Your task to perform on an android device: View the shopping cart on walmart. Image 0: 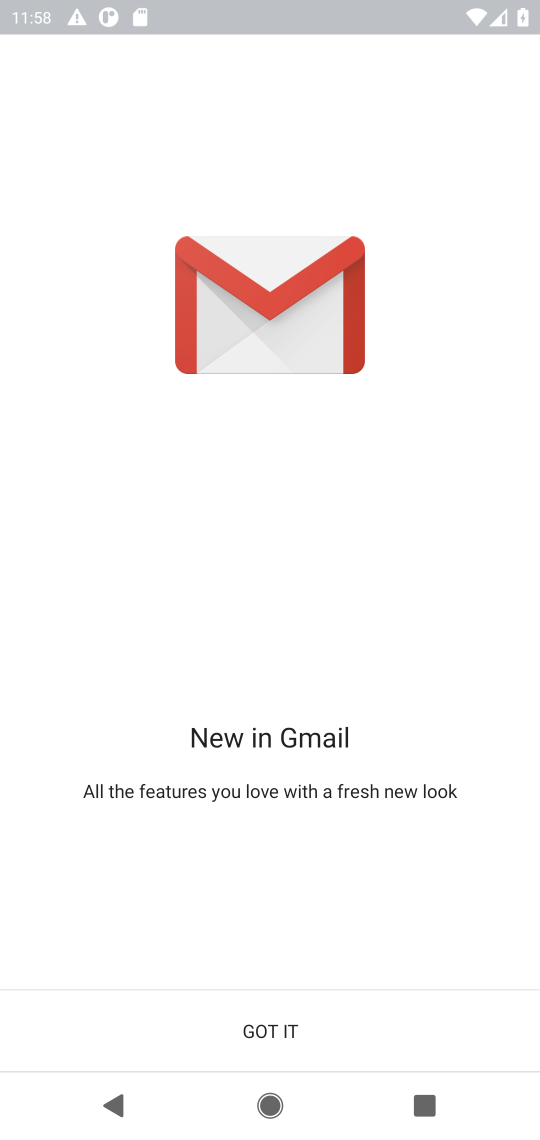
Step 0: press home button
Your task to perform on an android device: View the shopping cart on walmart. Image 1: 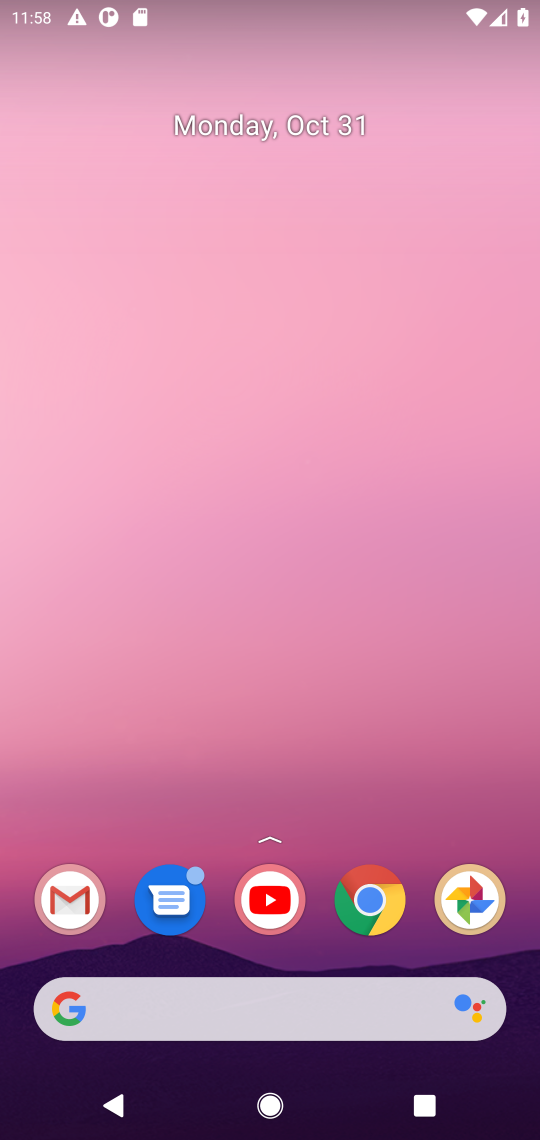
Step 1: click (358, 911)
Your task to perform on an android device: View the shopping cart on walmart. Image 2: 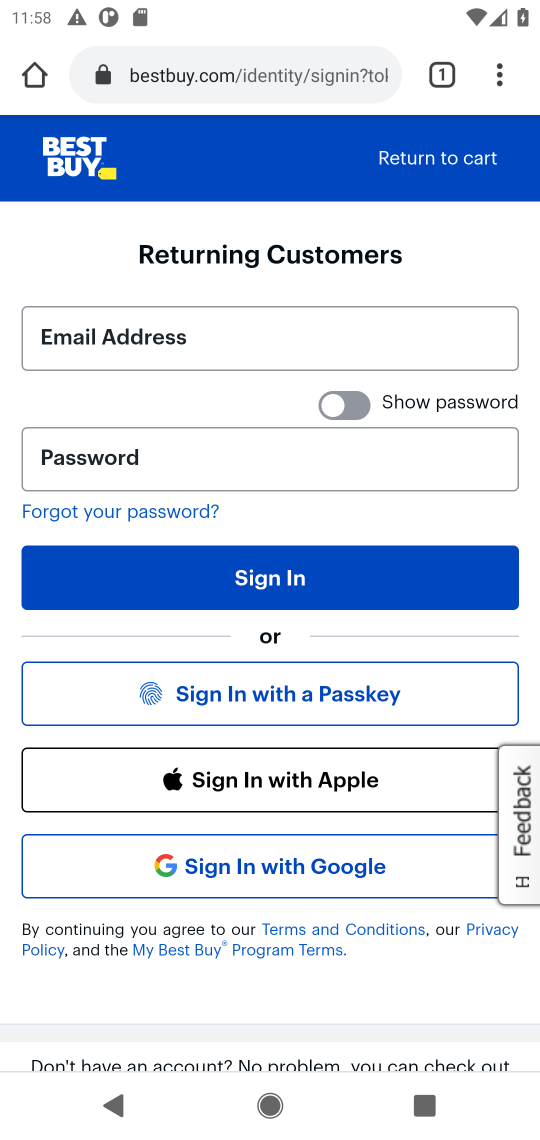
Step 2: click (169, 69)
Your task to perform on an android device: View the shopping cart on walmart. Image 3: 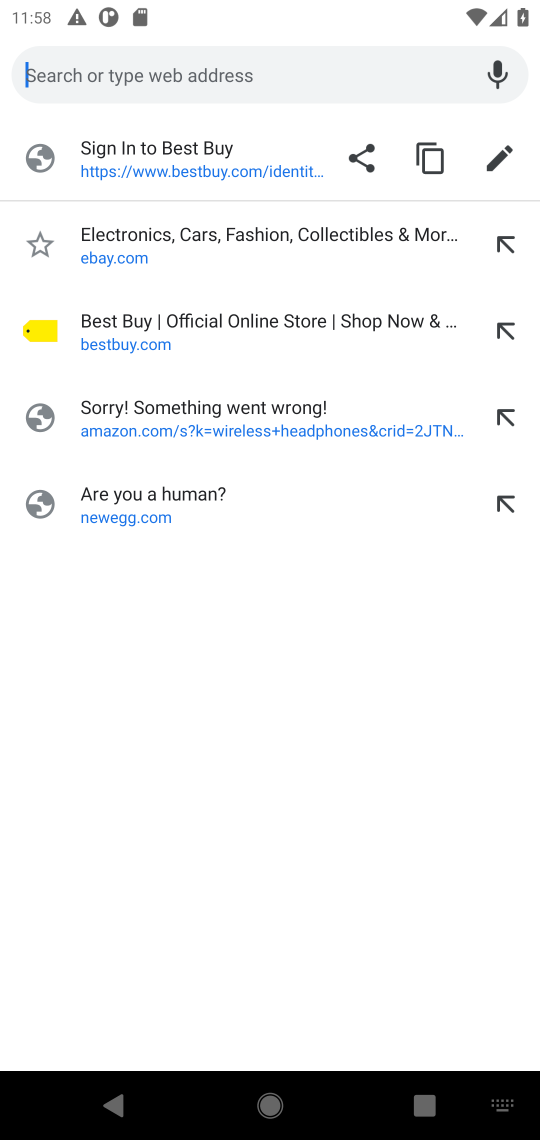
Step 3: type "walmart"
Your task to perform on an android device: View the shopping cart on walmart. Image 4: 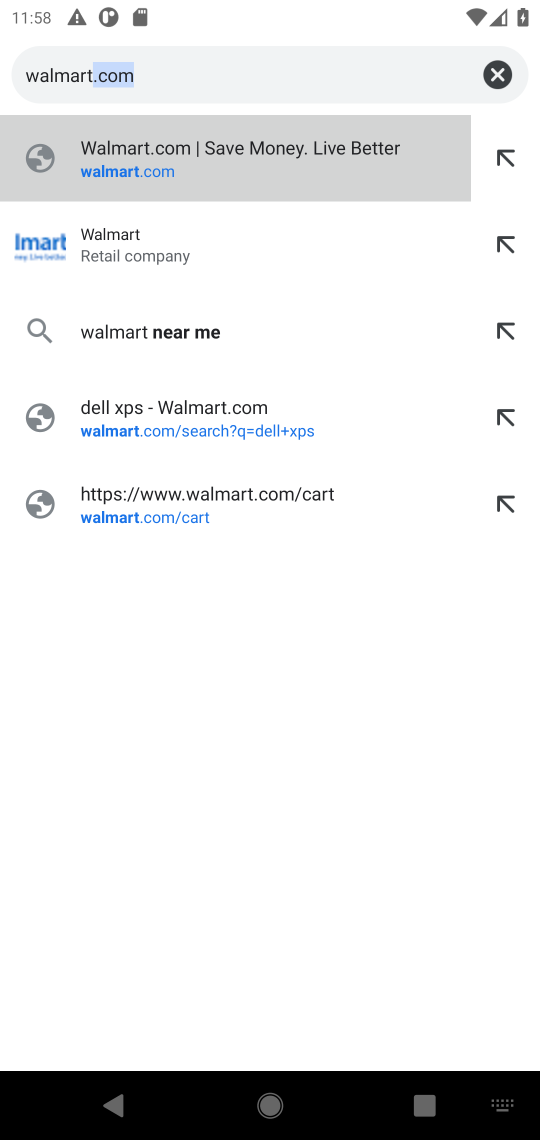
Step 4: press enter
Your task to perform on an android device: View the shopping cart on walmart. Image 5: 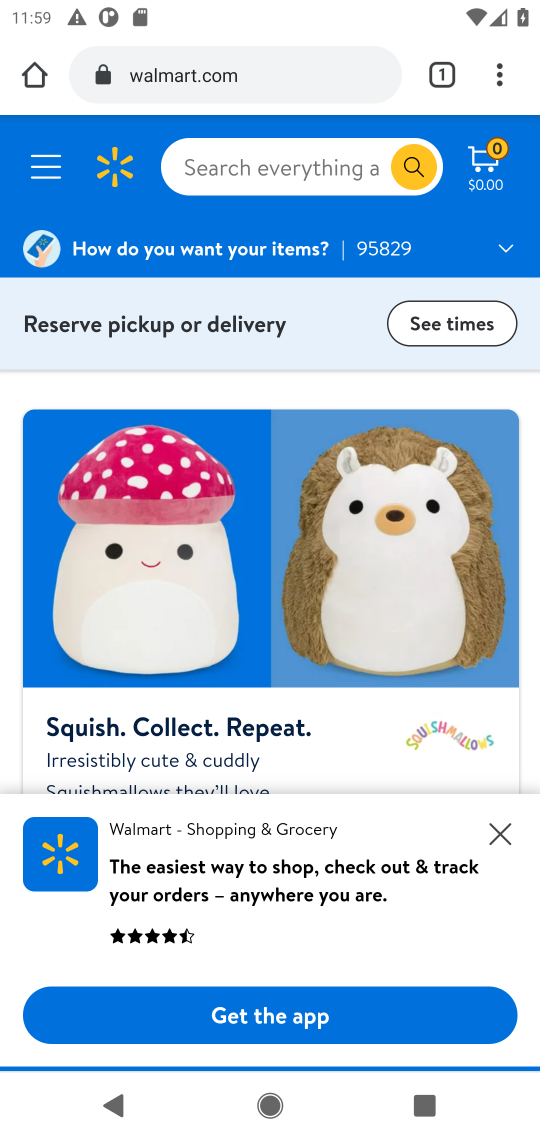
Step 5: drag from (211, 754) to (261, 300)
Your task to perform on an android device: View the shopping cart on walmart. Image 6: 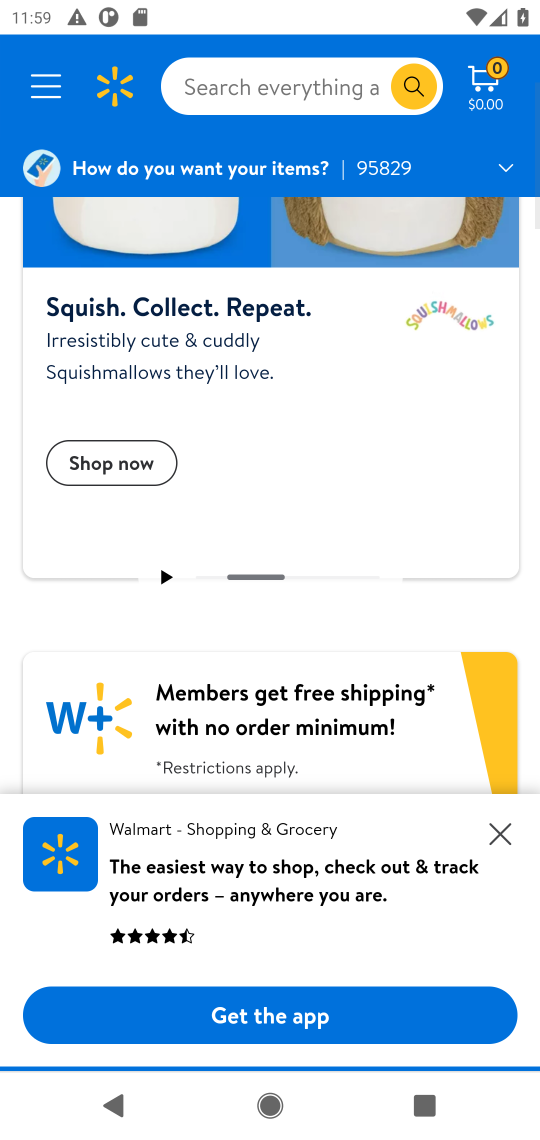
Step 6: drag from (311, 590) to (352, 307)
Your task to perform on an android device: View the shopping cart on walmart. Image 7: 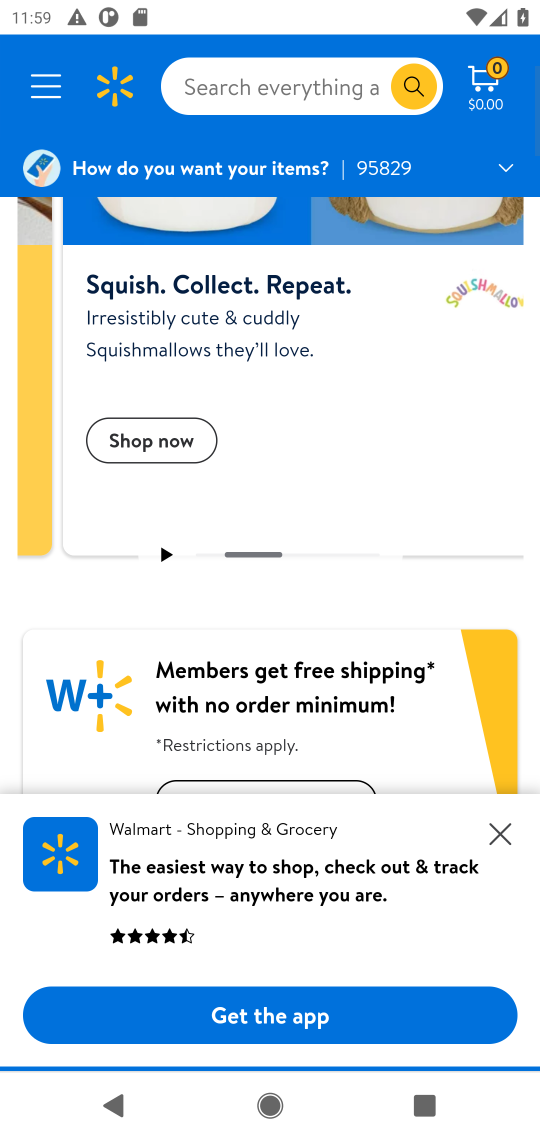
Step 7: drag from (281, 726) to (354, 382)
Your task to perform on an android device: View the shopping cart on walmart. Image 8: 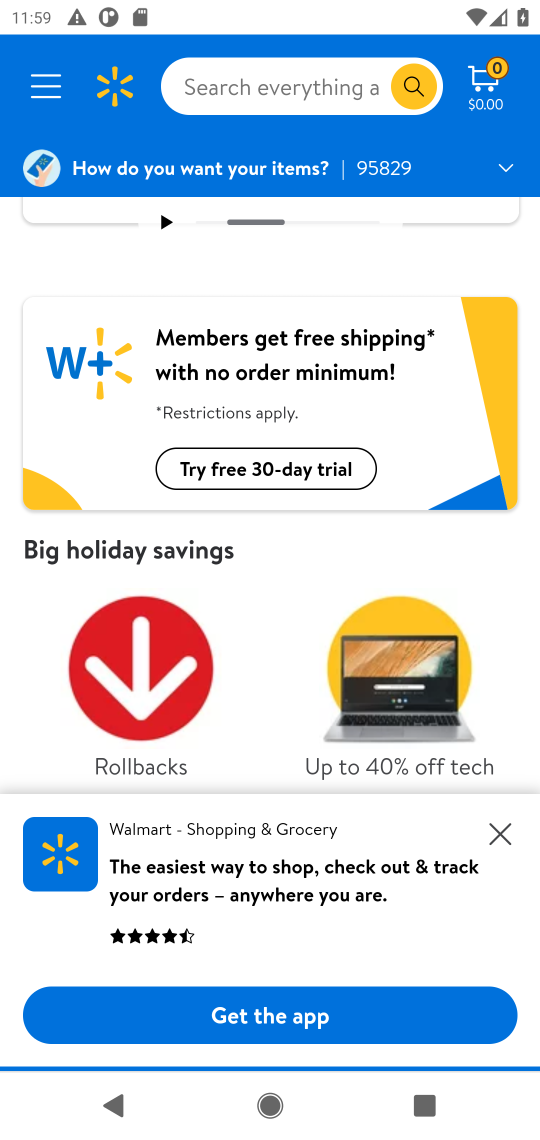
Step 8: click (496, 838)
Your task to perform on an android device: View the shopping cart on walmart. Image 9: 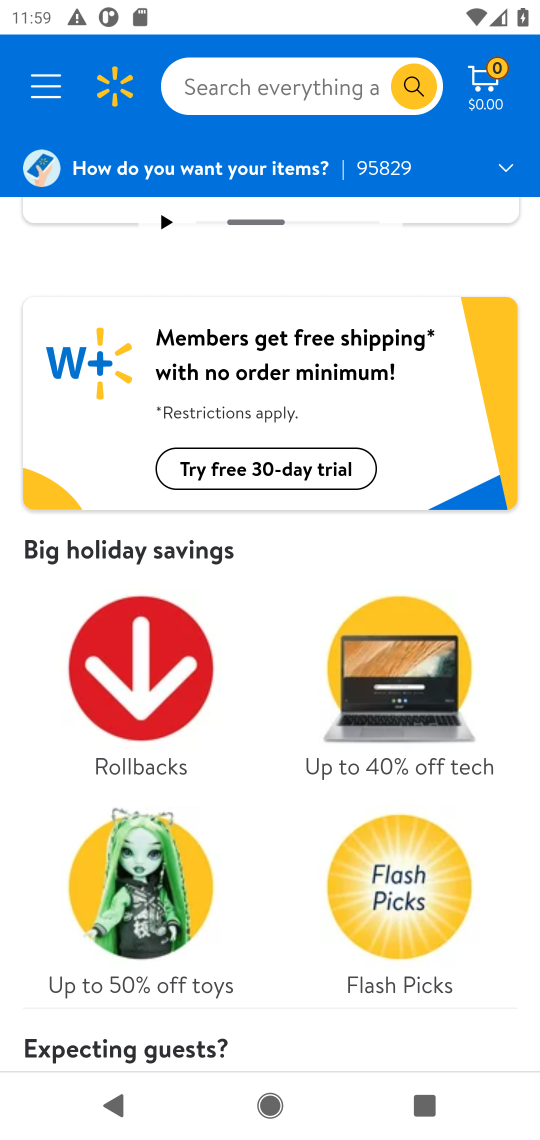
Step 9: drag from (317, 948) to (322, 299)
Your task to perform on an android device: View the shopping cart on walmart. Image 10: 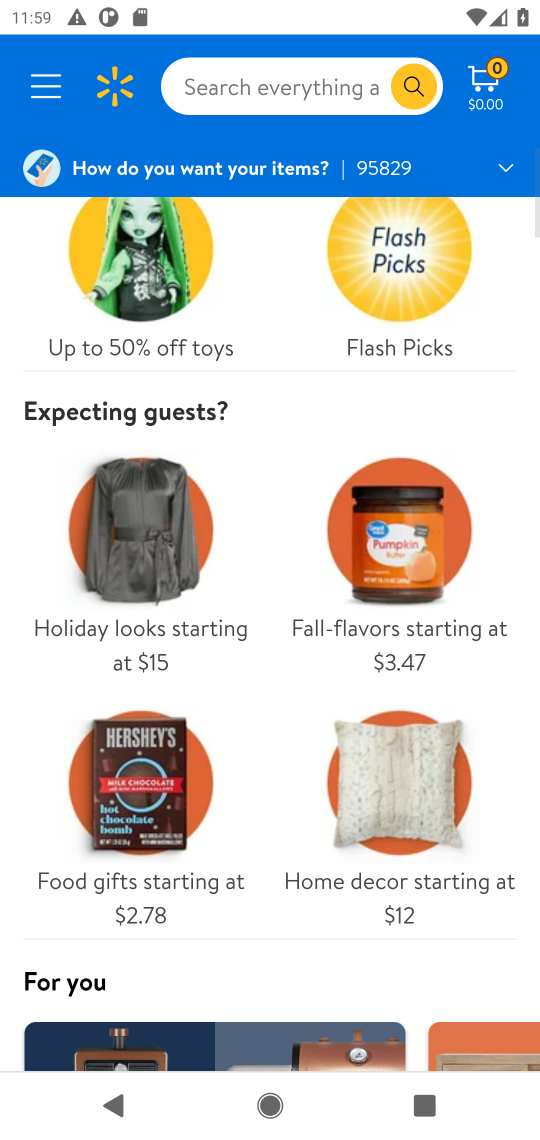
Step 10: drag from (292, 862) to (305, 497)
Your task to perform on an android device: View the shopping cart on walmart. Image 11: 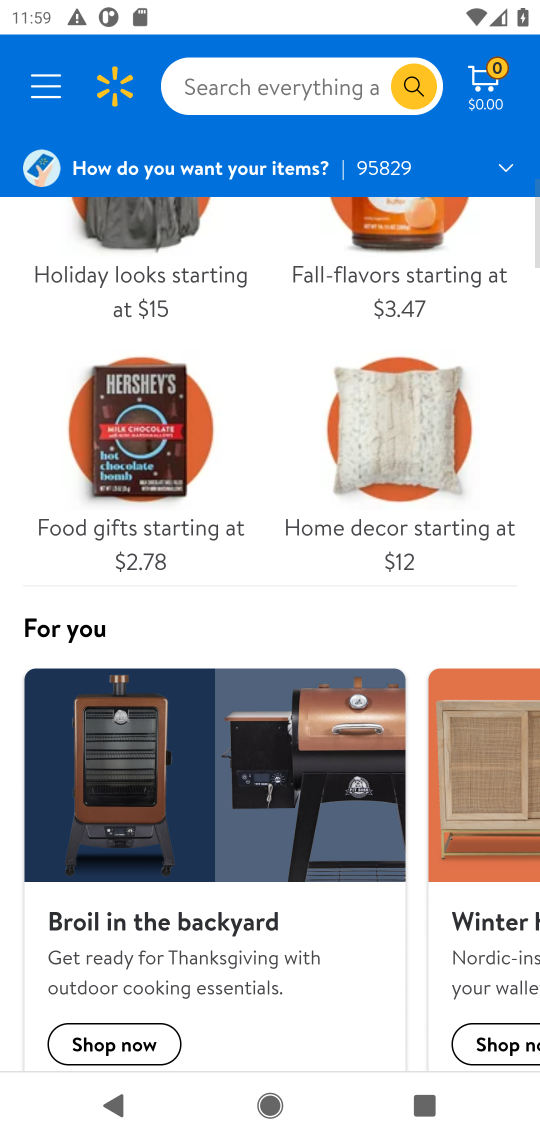
Step 11: click (235, 86)
Your task to perform on an android device: View the shopping cart on walmart. Image 12: 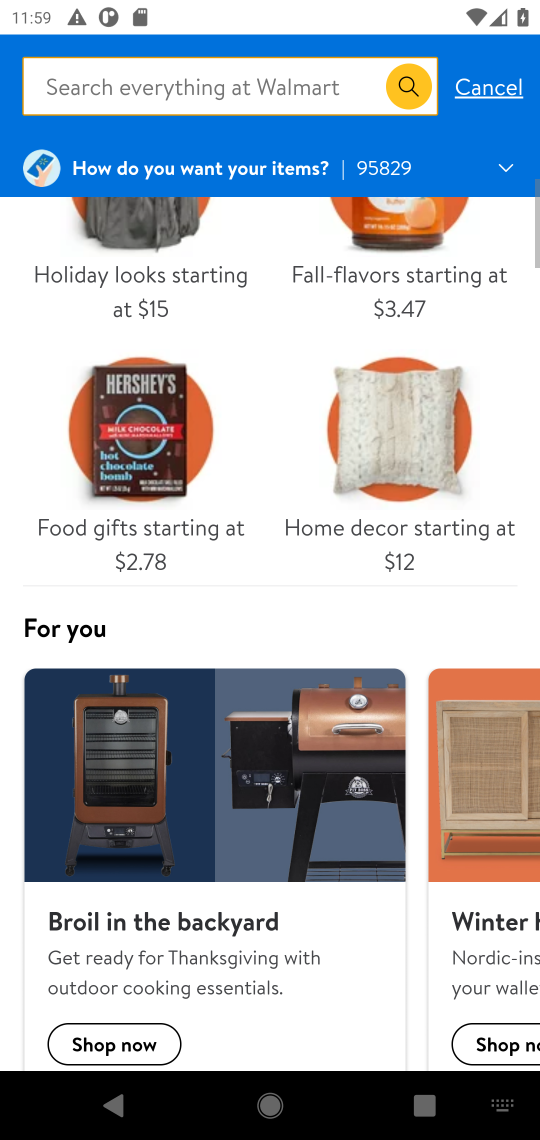
Step 12: click (480, 92)
Your task to perform on an android device: View the shopping cart on walmart. Image 13: 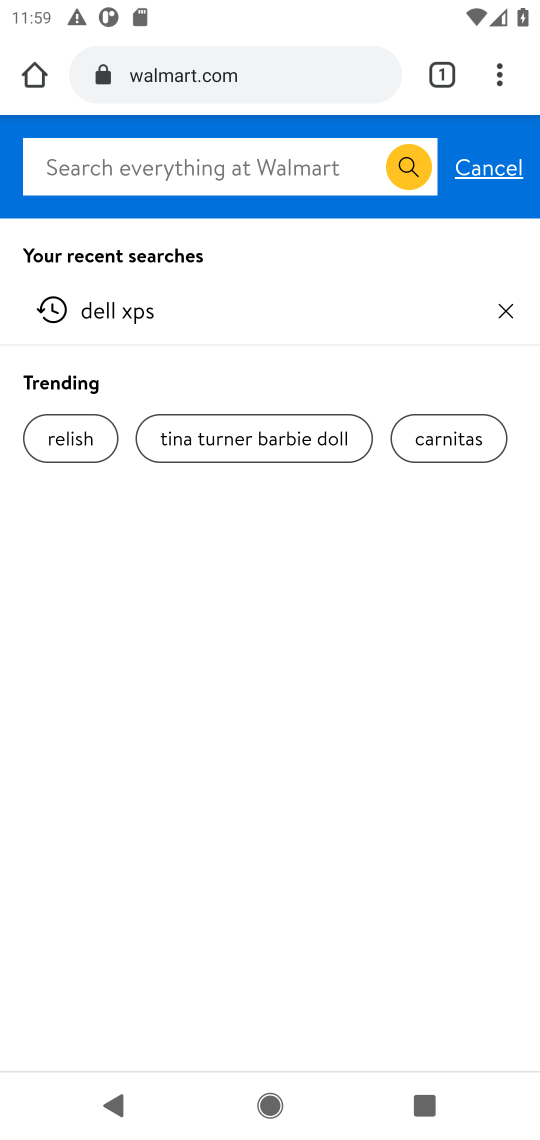
Step 13: click (481, 175)
Your task to perform on an android device: View the shopping cart on walmart. Image 14: 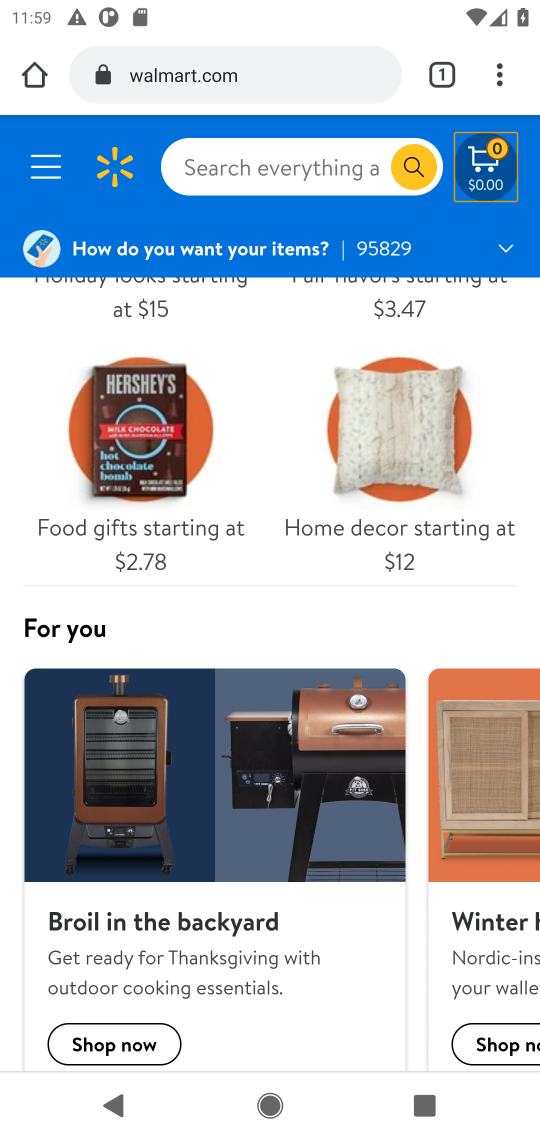
Step 14: click (482, 158)
Your task to perform on an android device: View the shopping cart on walmart. Image 15: 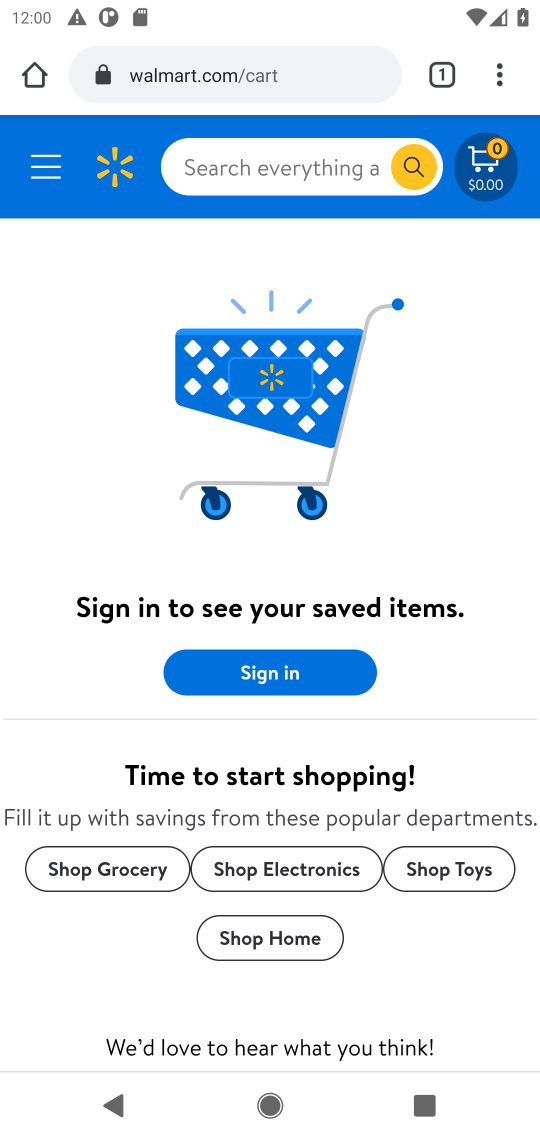
Step 15: task complete